Your task to perform on an android device: open a bookmark in the chrome app Image 0: 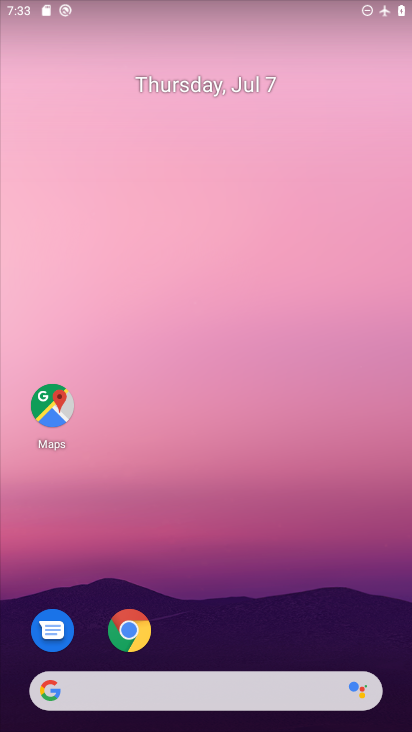
Step 0: click (130, 627)
Your task to perform on an android device: open a bookmark in the chrome app Image 1: 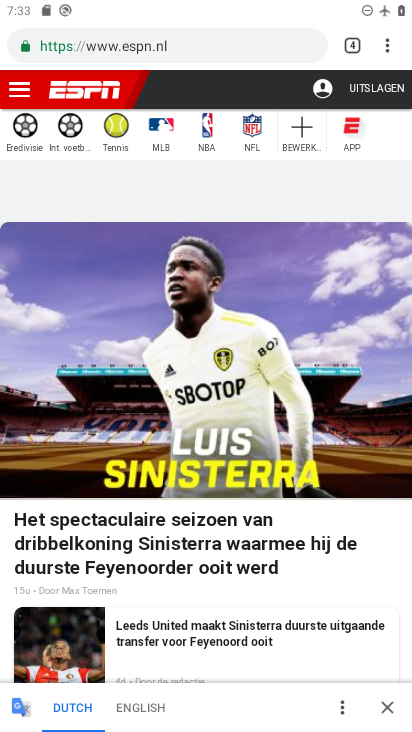
Step 1: click (389, 37)
Your task to perform on an android device: open a bookmark in the chrome app Image 2: 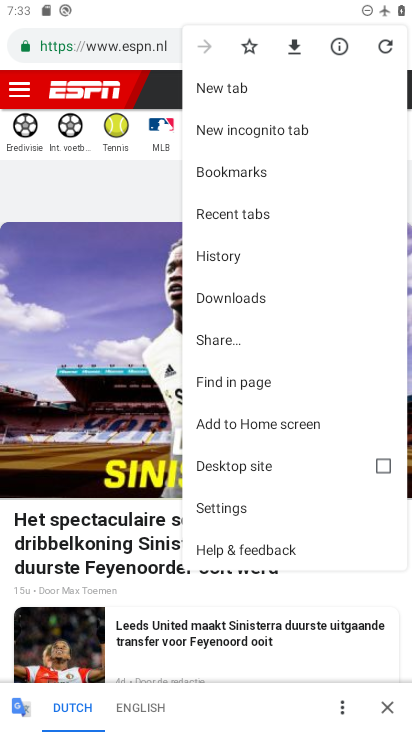
Step 2: click (257, 172)
Your task to perform on an android device: open a bookmark in the chrome app Image 3: 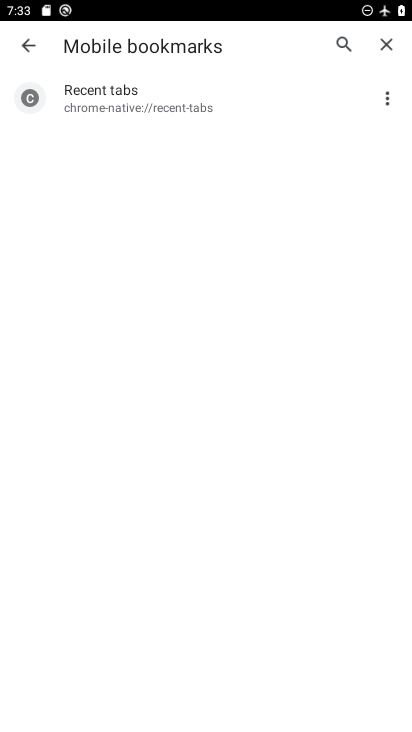
Step 3: task complete